Your task to perform on an android device: turn vacation reply on in the gmail app Image 0: 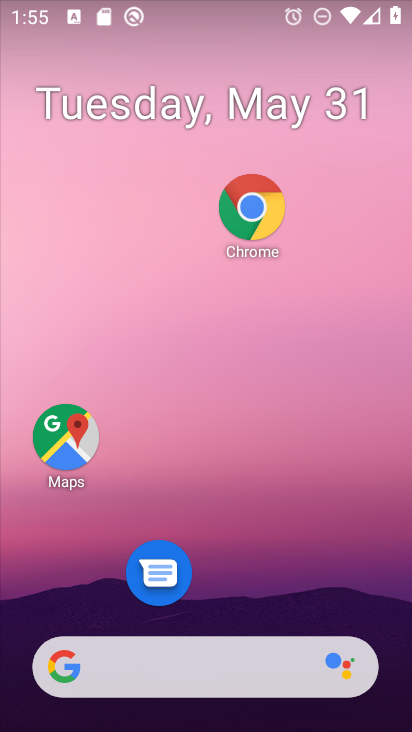
Step 0: drag from (264, 660) to (315, 66)
Your task to perform on an android device: turn vacation reply on in the gmail app Image 1: 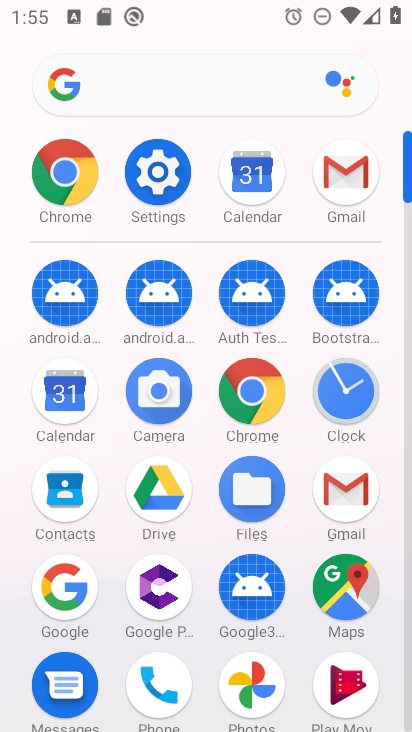
Step 1: click (350, 502)
Your task to perform on an android device: turn vacation reply on in the gmail app Image 2: 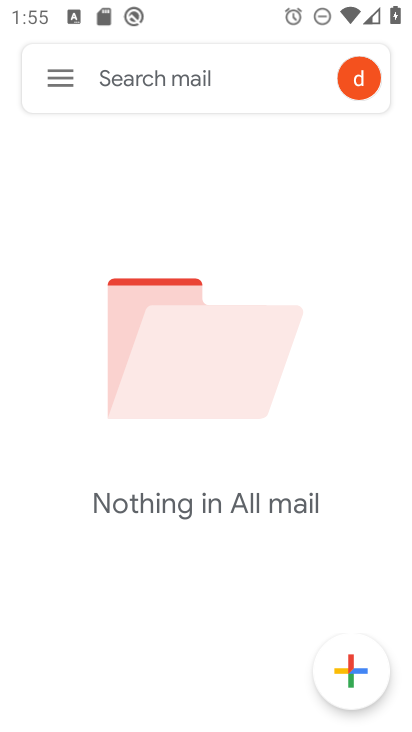
Step 2: click (71, 78)
Your task to perform on an android device: turn vacation reply on in the gmail app Image 3: 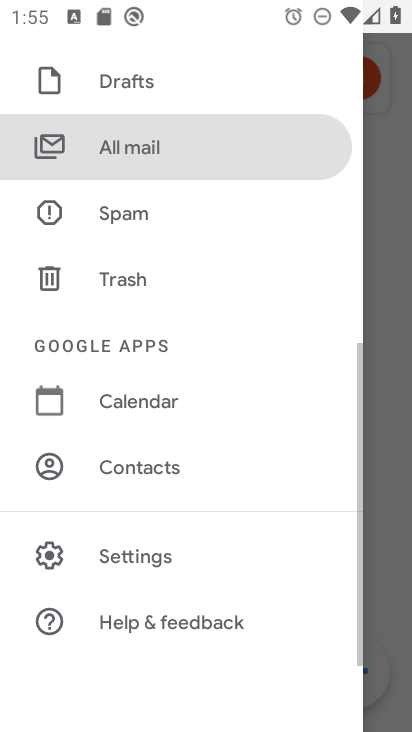
Step 3: click (140, 536)
Your task to perform on an android device: turn vacation reply on in the gmail app Image 4: 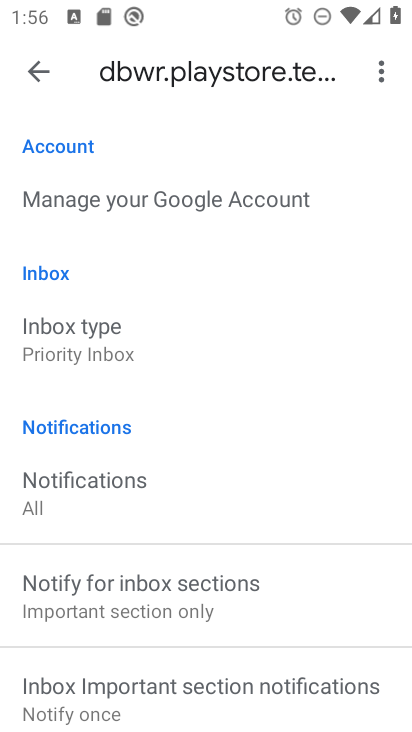
Step 4: drag from (159, 219) to (224, 12)
Your task to perform on an android device: turn vacation reply on in the gmail app Image 5: 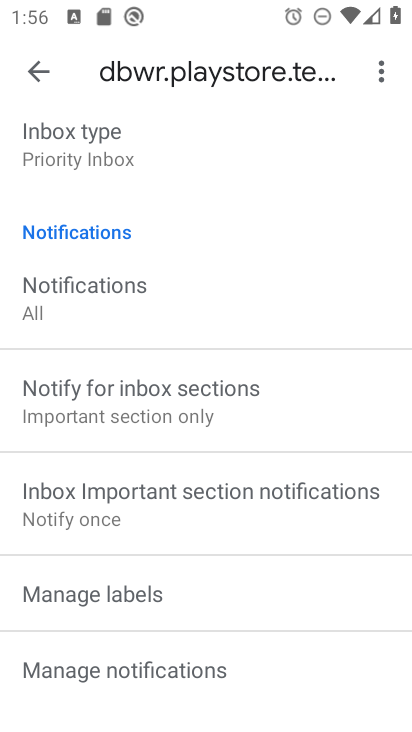
Step 5: drag from (253, 562) to (300, 122)
Your task to perform on an android device: turn vacation reply on in the gmail app Image 6: 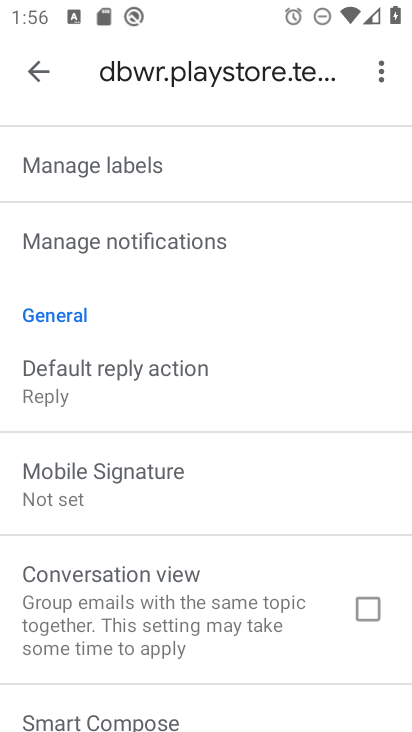
Step 6: drag from (195, 543) to (173, 55)
Your task to perform on an android device: turn vacation reply on in the gmail app Image 7: 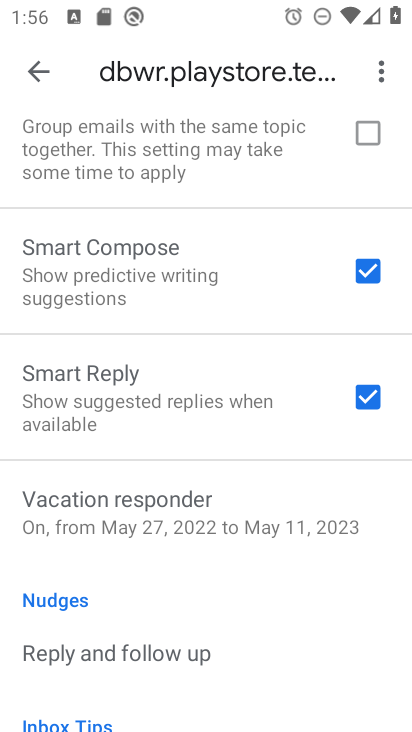
Step 7: click (161, 510)
Your task to perform on an android device: turn vacation reply on in the gmail app Image 8: 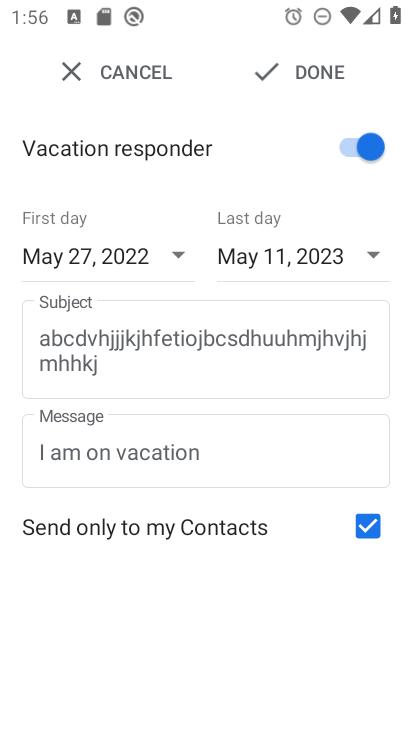
Step 8: task complete